Your task to perform on an android device: uninstall "Roku - Official Remote Control" Image 0: 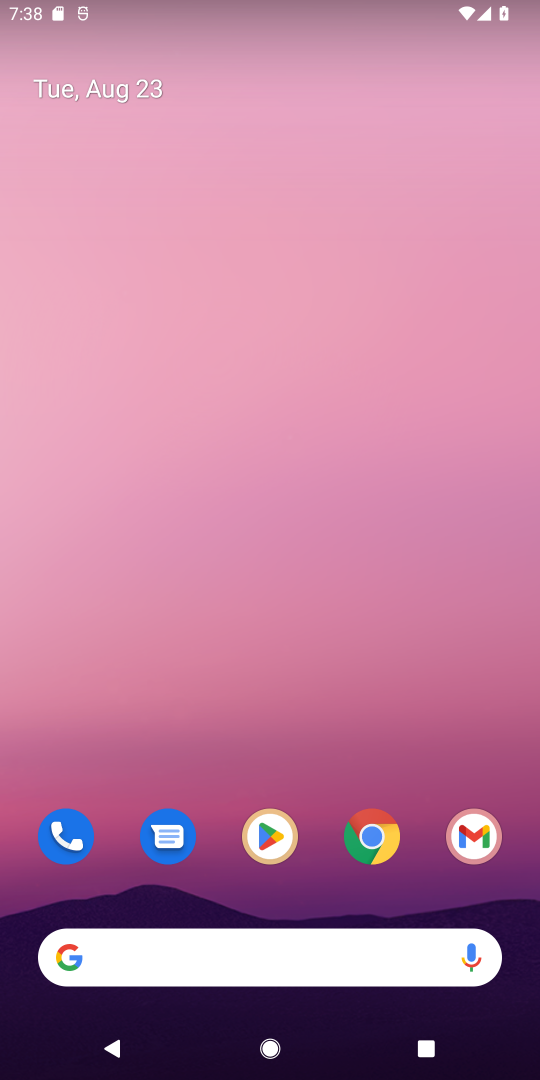
Step 0: click (274, 822)
Your task to perform on an android device: uninstall "Roku - Official Remote Control" Image 1: 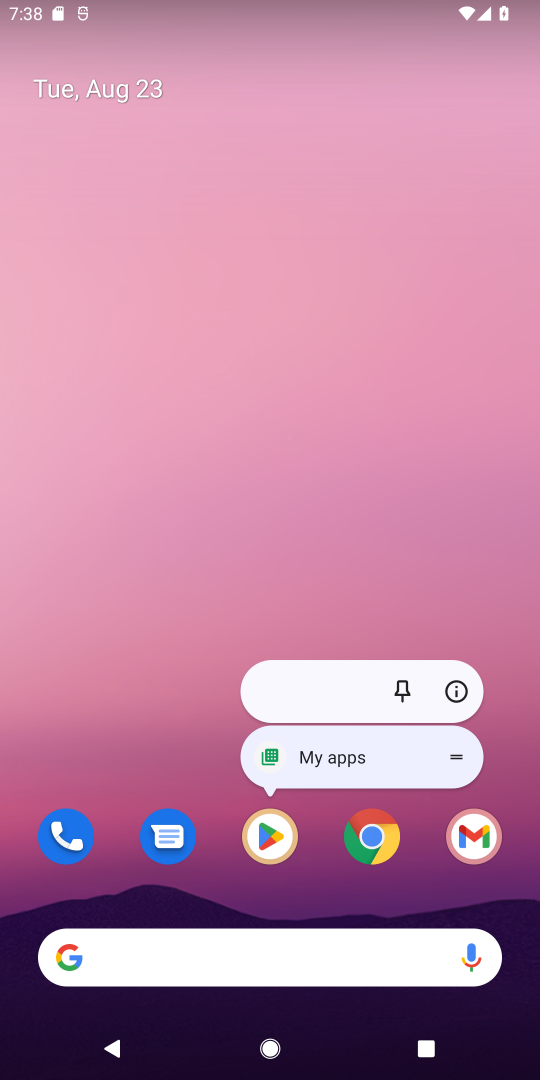
Step 1: click (268, 826)
Your task to perform on an android device: uninstall "Roku - Official Remote Control" Image 2: 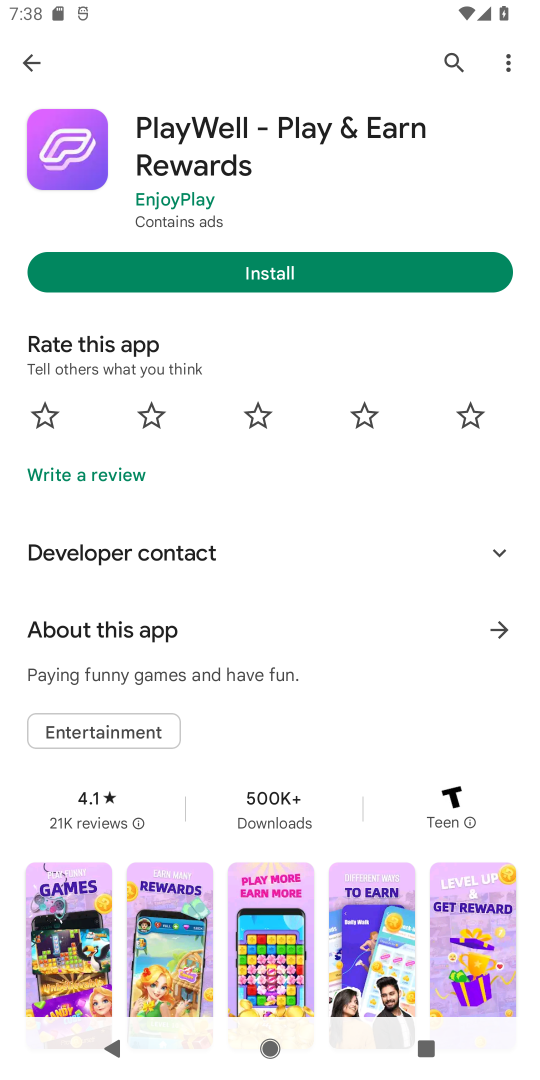
Step 2: click (451, 61)
Your task to perform on an android device: uninstall "Roku - Official Remote Control" Image 3: 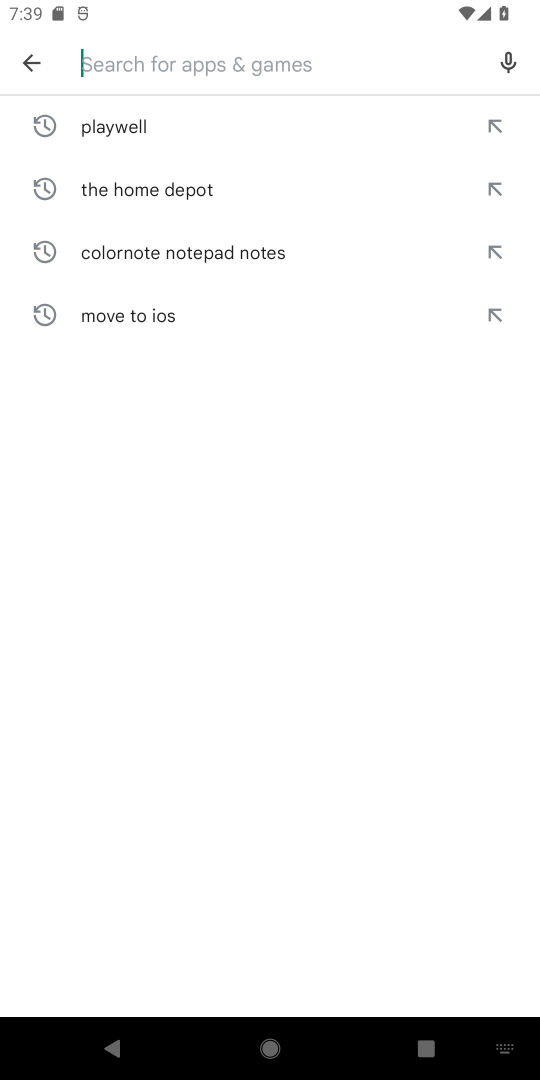
Step 3: type "Roku - Official Remote Control"
Your task to perform on an android device: uninstall "Roku - Official Remote Control" Image 4: 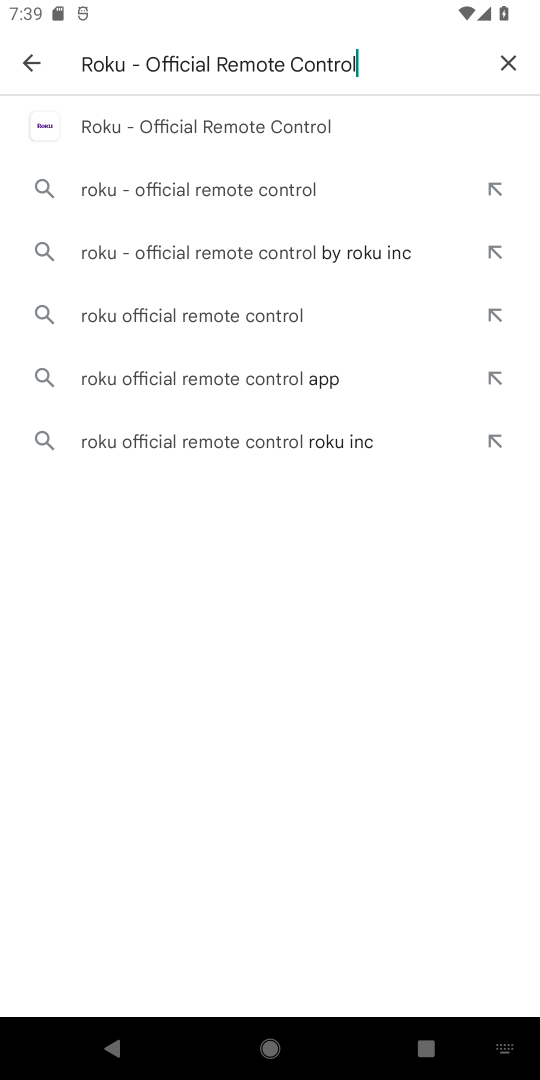
Step 4: click (204, 134)
Your task to perform on an android device: uninstall "Roku - Official Remote Control" Image 5: 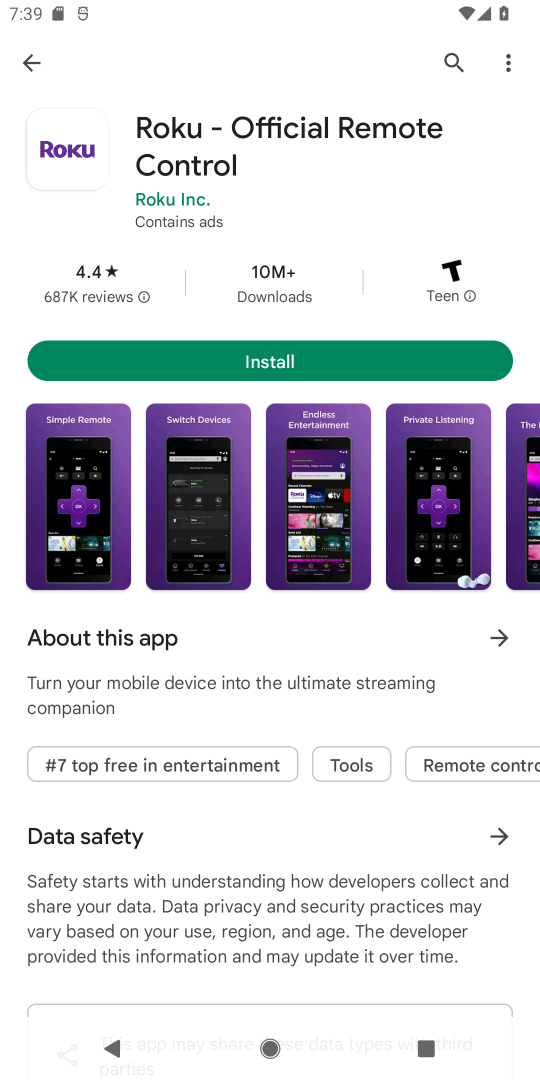
Step 5: task complete